Your task to perform on an android device: see creations saved in the google photos Image 0: 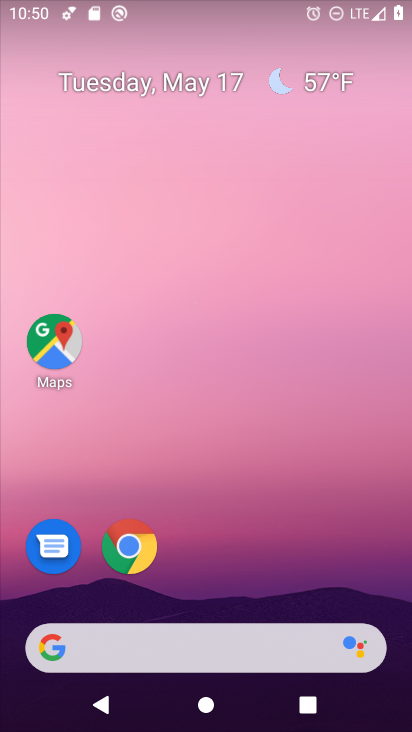
Step 0: drag from (313, 548) to (330, 19)
Your task to perform on an android device: see creations saved in the google photos Image 1: 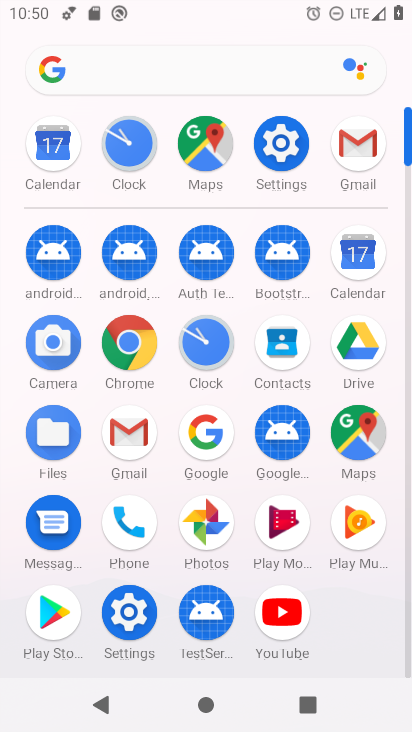
Step 1: click (206, 529)
Your task to perform on an android device: see creations saved in the google photos Image 2: 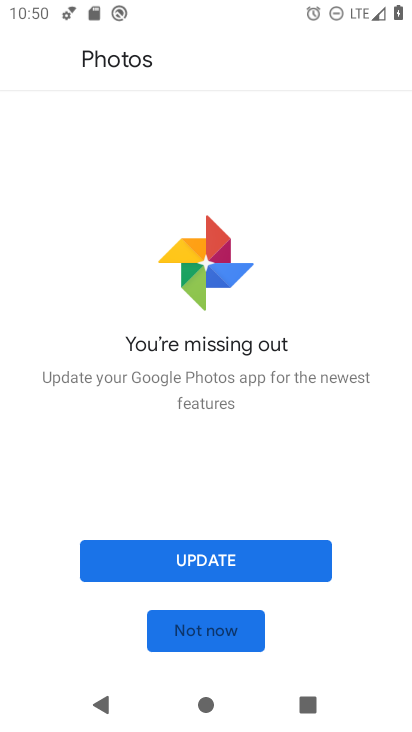
Step 2: click (207, 636)
Your task to perform on an android device: see creations saved in the google photos Image 3: 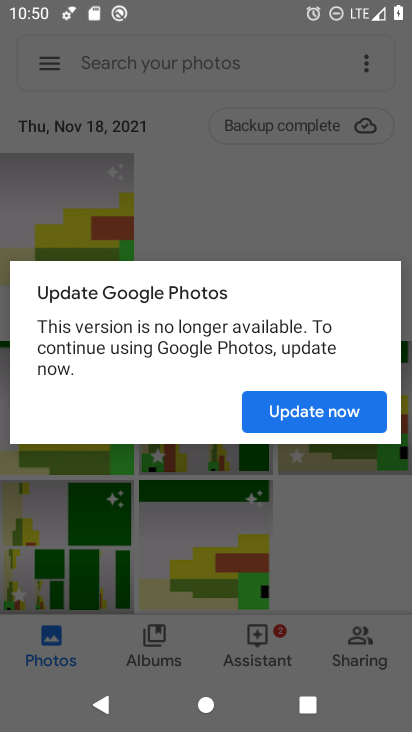
Step 3: click (298, 402)
Your task to perform on an android device: see creations saved in the google photos Image 4: 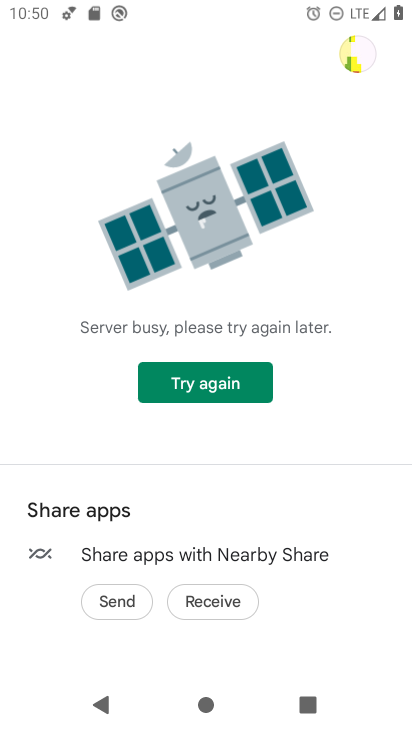
Step 4: click (206, 388)
Your task to perform on an android device: see creations saved in the google photos Image 5: 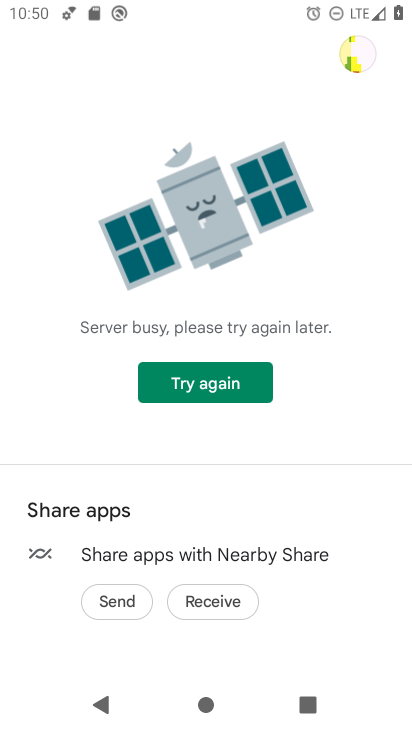
Step 5: press back button
Your task to perform on an android device: see creations saved in the google photos Image 6: 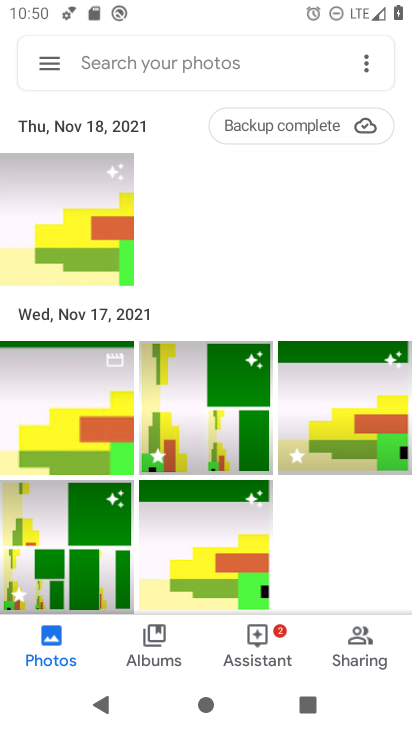
Step 6: click (128, 69)
Your task to perform on an android device: see creations saved in the google photos Image 7: 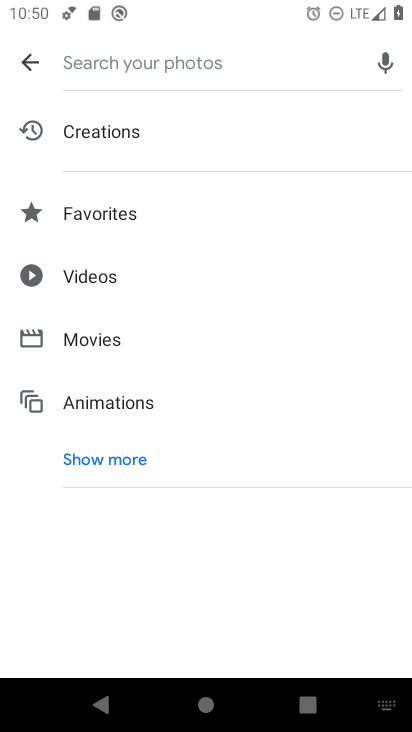
Step 7: click (113, 136)
Your task to perform on an android device: see creations saved in the google photos Image 8: 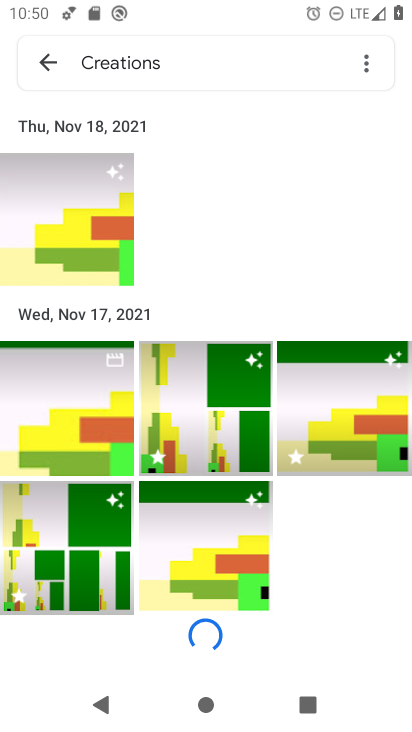
Step 8: task complete